Your task to perform on an android device: Search for "dell xps" on amazon, select the first entry, and add it to the cart. Image 0: 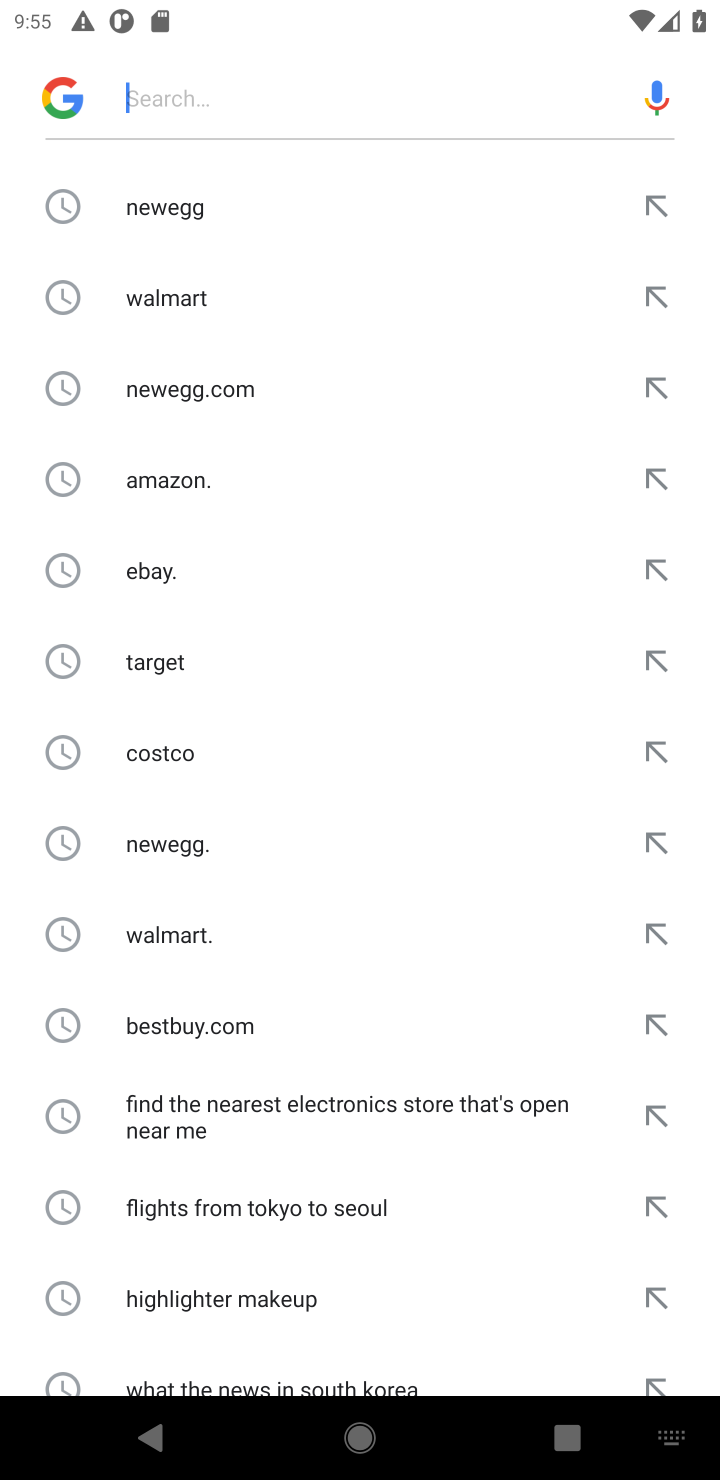
Step 0: press home button
Your task to perform on an android device: Search for "dell xps" on amazon, select the first entry, and add it to the cart. Image 1: 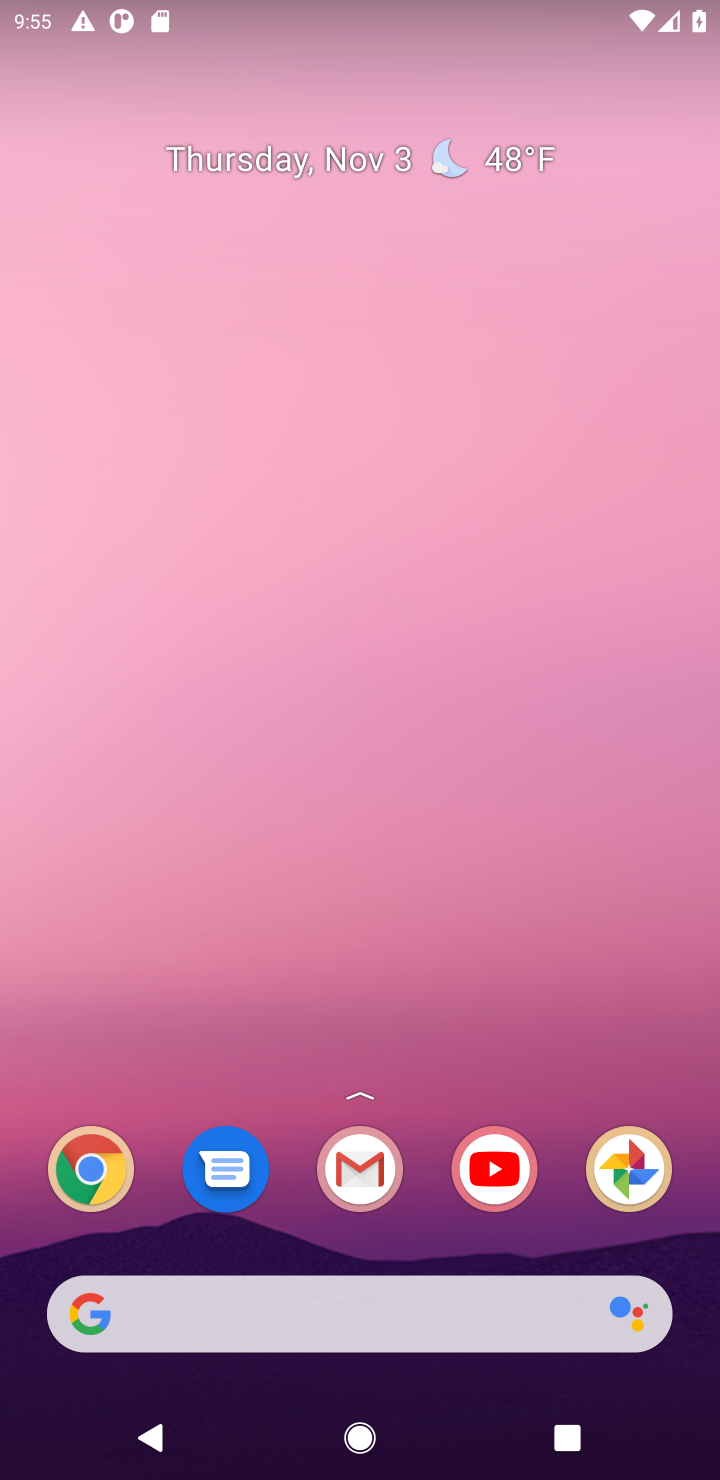
Step 1: drag from (420, 1245) to (523, 238)
Your task to perform on an android device: Search for "dell xps" on amazon, select the first entry, and add it to the cart. Image 2: 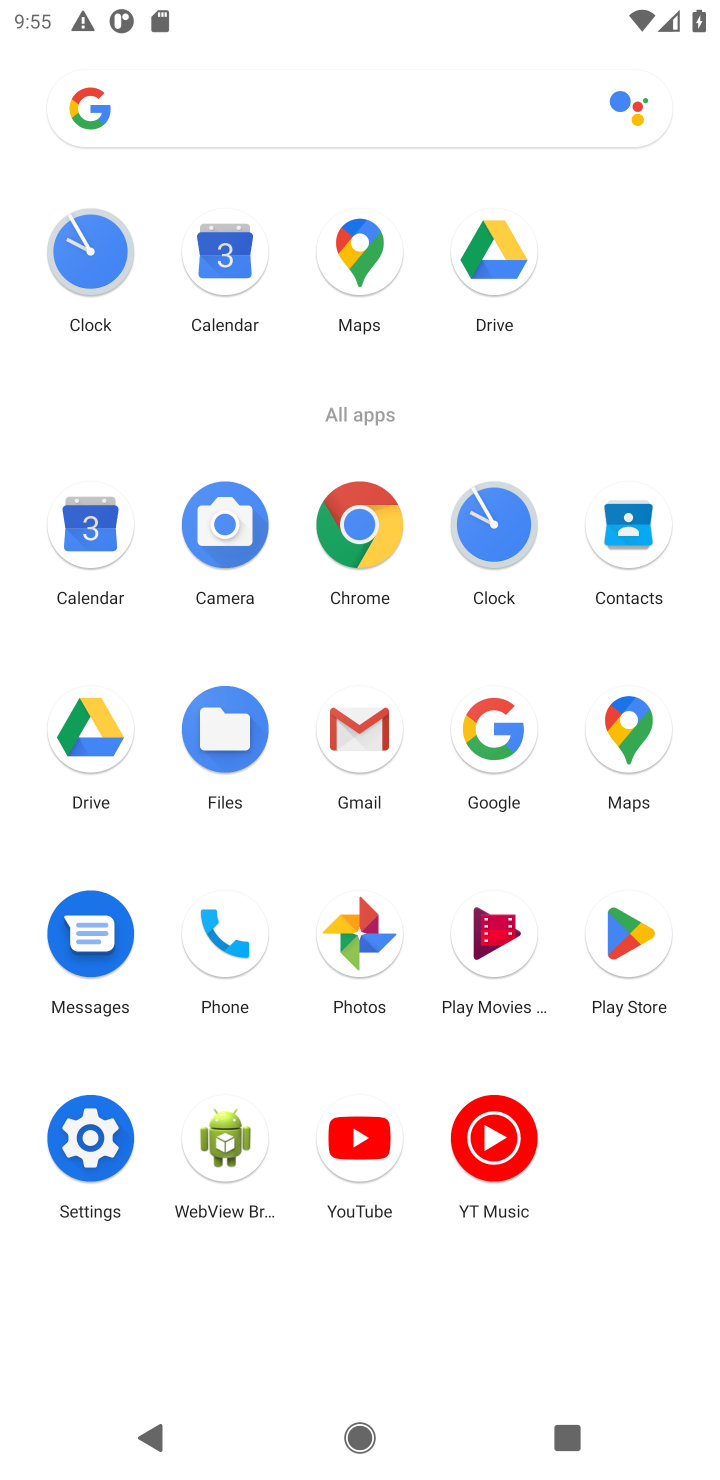
Step 2: click (357, 528)
Your task to perform on an android device: Search for "dell xps" on amazon, select the first entry, and add it to the cart. Image 3: 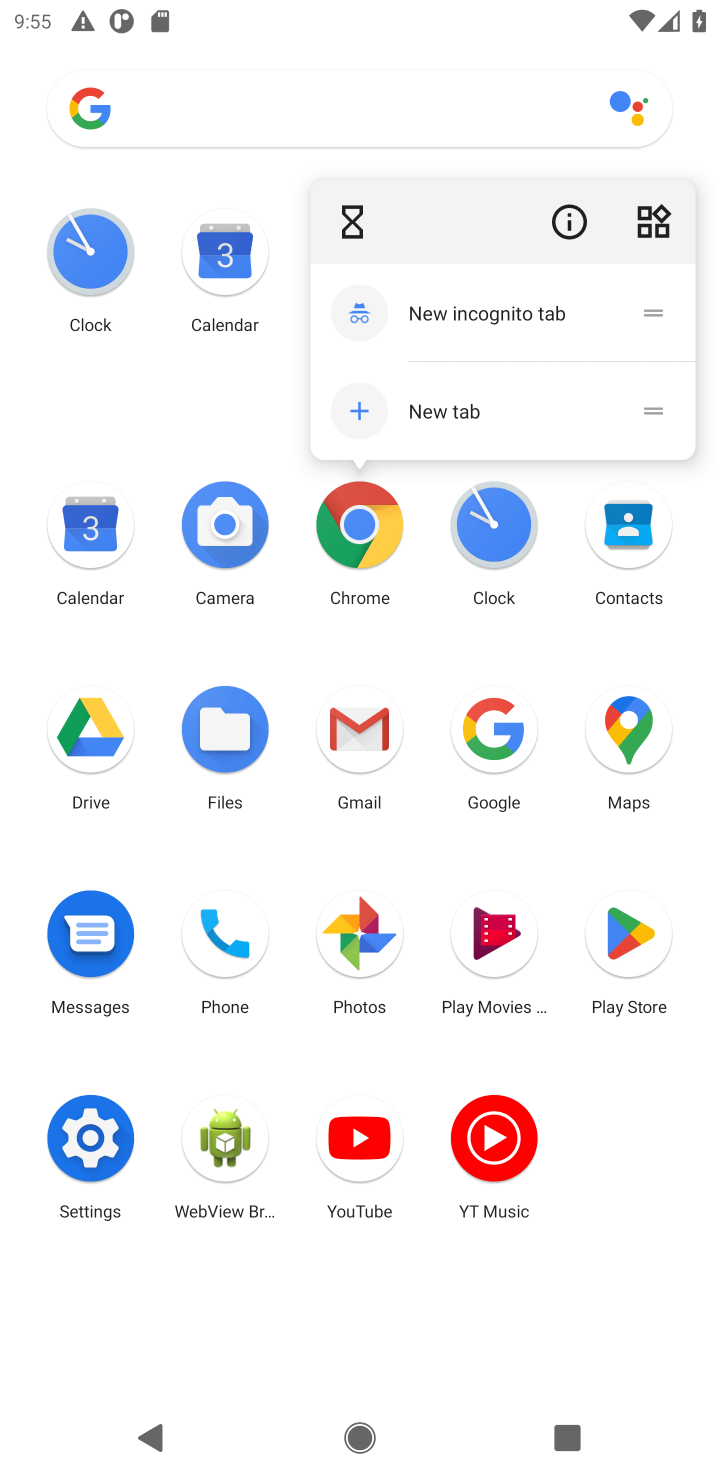
Step 3: click (357, 528)
Your task to perform on an android device: Search for "dell xps" on amazon, select the first entry, and add it to the cart. Image 4: 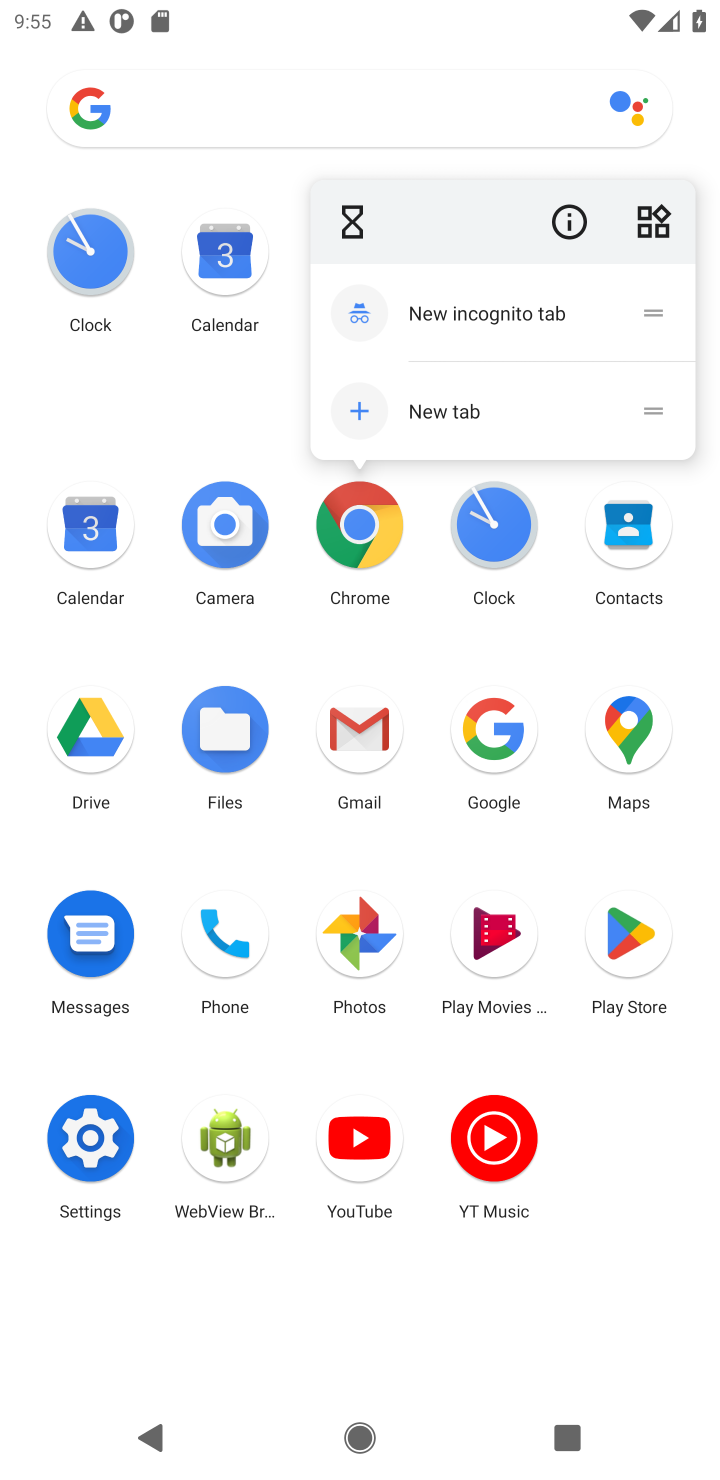
Step 4: click (370, 524)
Your task to perform on an android device: Search for "dell xps" on amazon, select the first entry, and add it to the cart. Image 5: 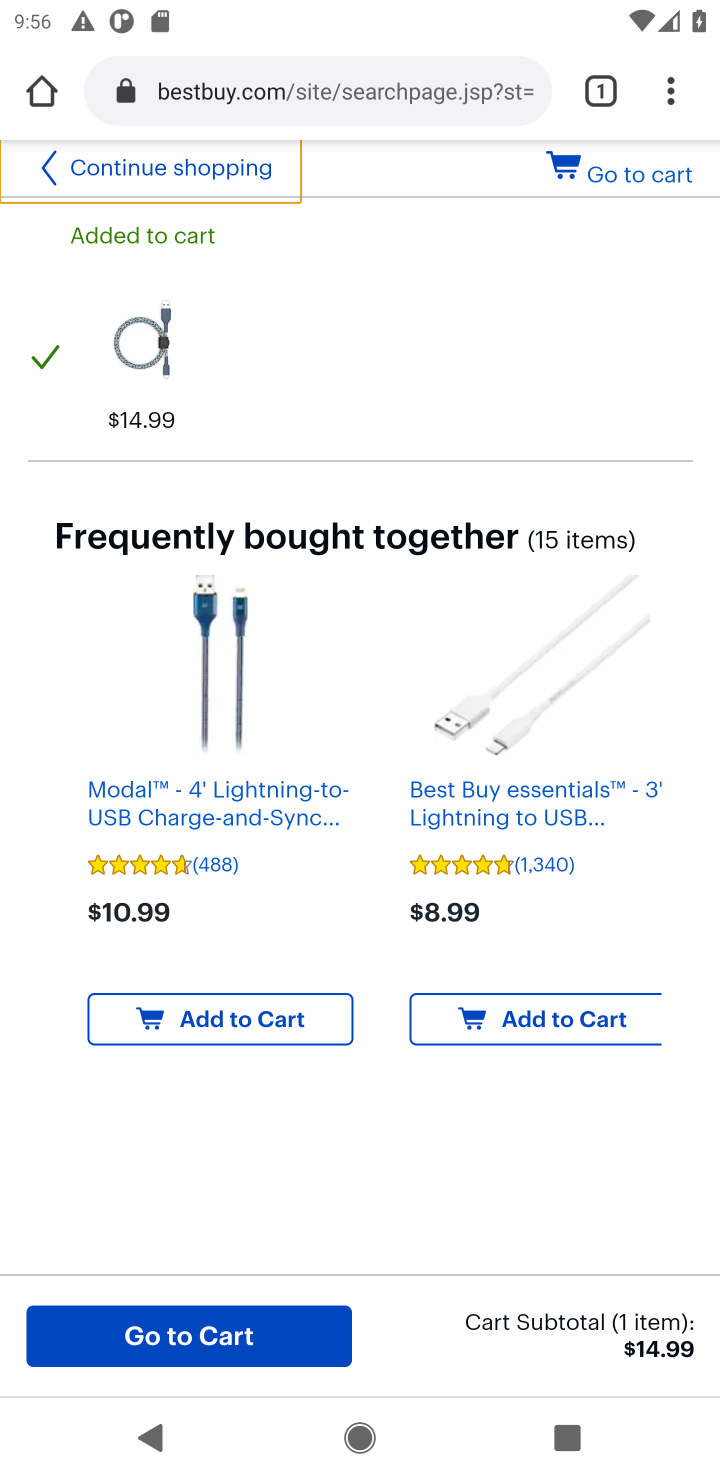
Step 5: click (363, 85)
Your task to perform on an android device: Search for "dell xps" on amazon, select the first entry, and add it to the cart. Image 6: 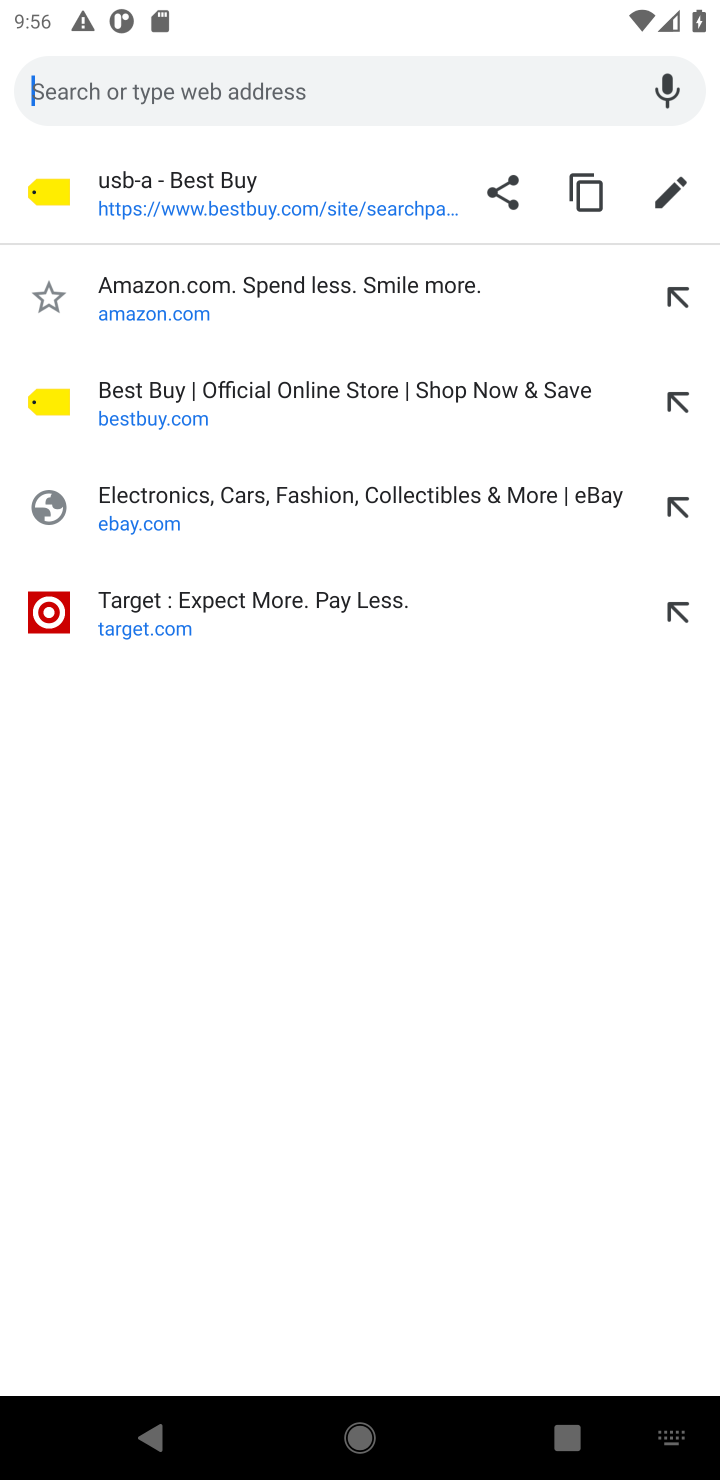
Step 6: type "amazon.com"
Your task to perform on an android device: Search for "dell xps" on amazon, select the first entry, and add it to the cart. Image 7: 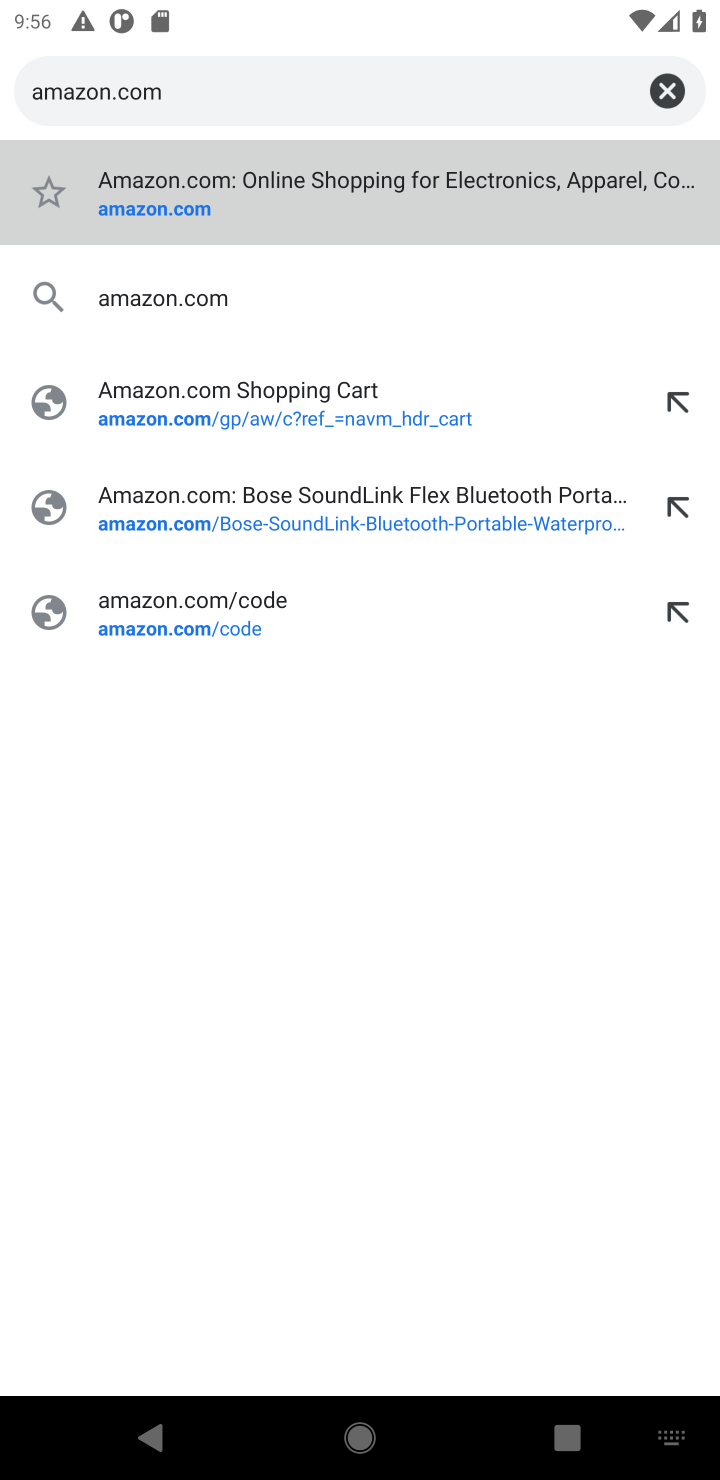
Step 7: press enter
Your task to perform on an android device: Search for "dell xps" on amazon, select the first entry, and add it to the cart. Image 8: 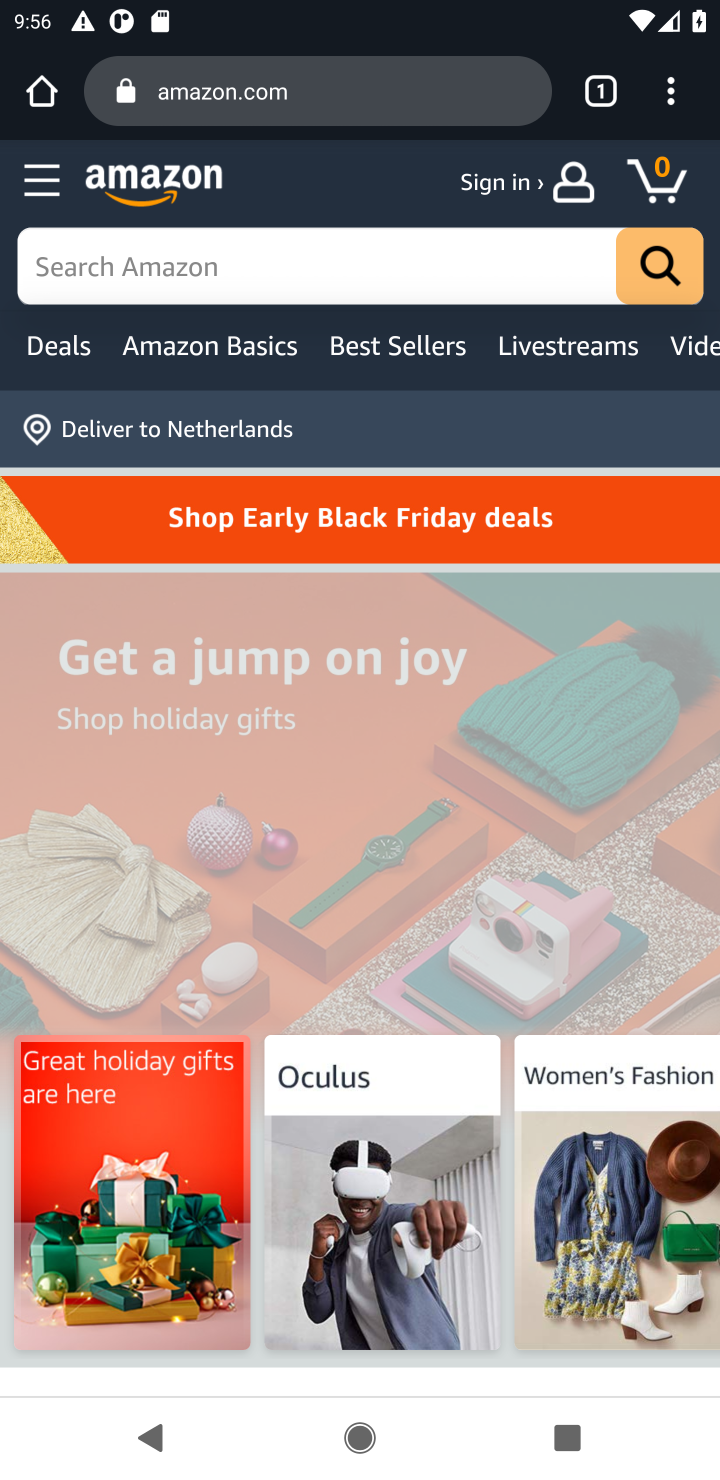
Step 8: click (377, 277)
Your task to perform on an android device: Search for "dell xps" on amazon, select the first entry, and add it to the cart. Image 9: 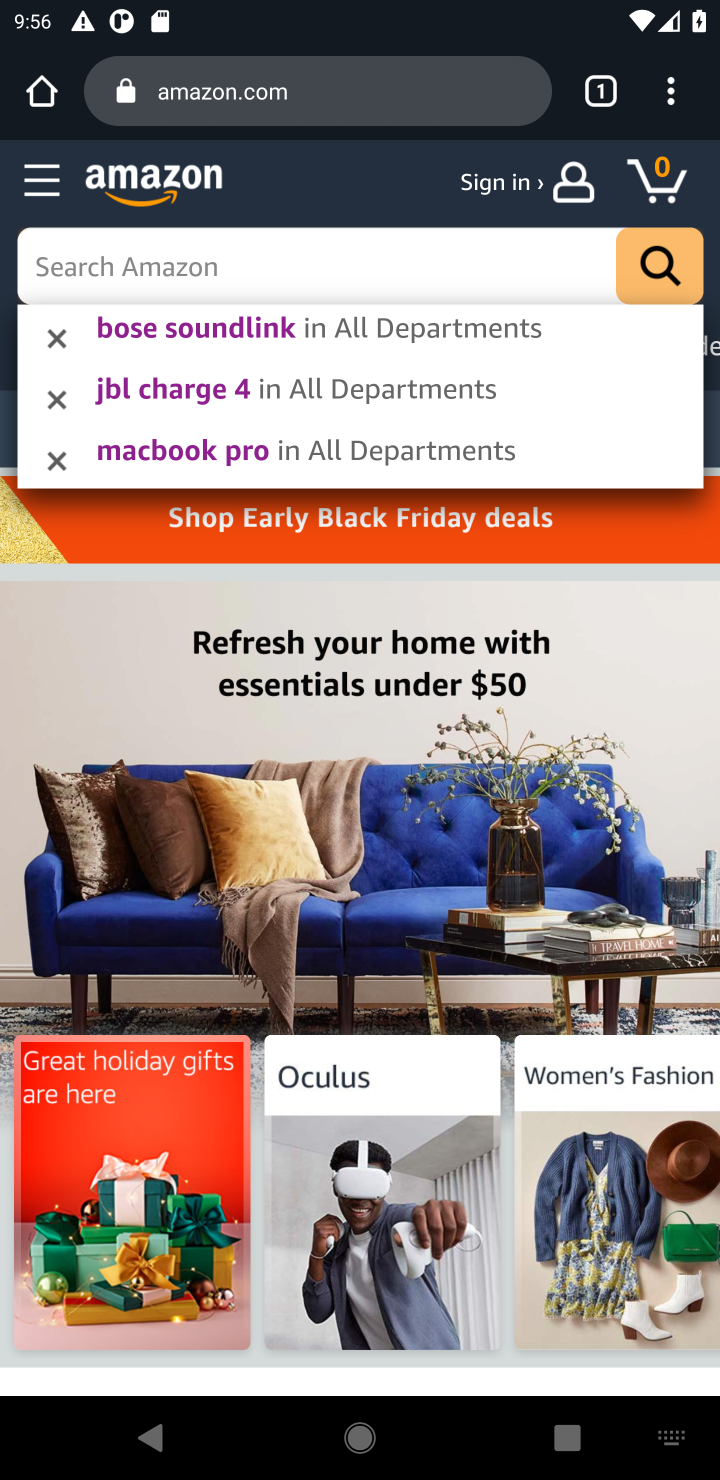
Step 9: type "dell xps"
Your task to perform on an android device: Search for "dell xps" on amazon, select the first entry, and add it to the cart. Image 10: 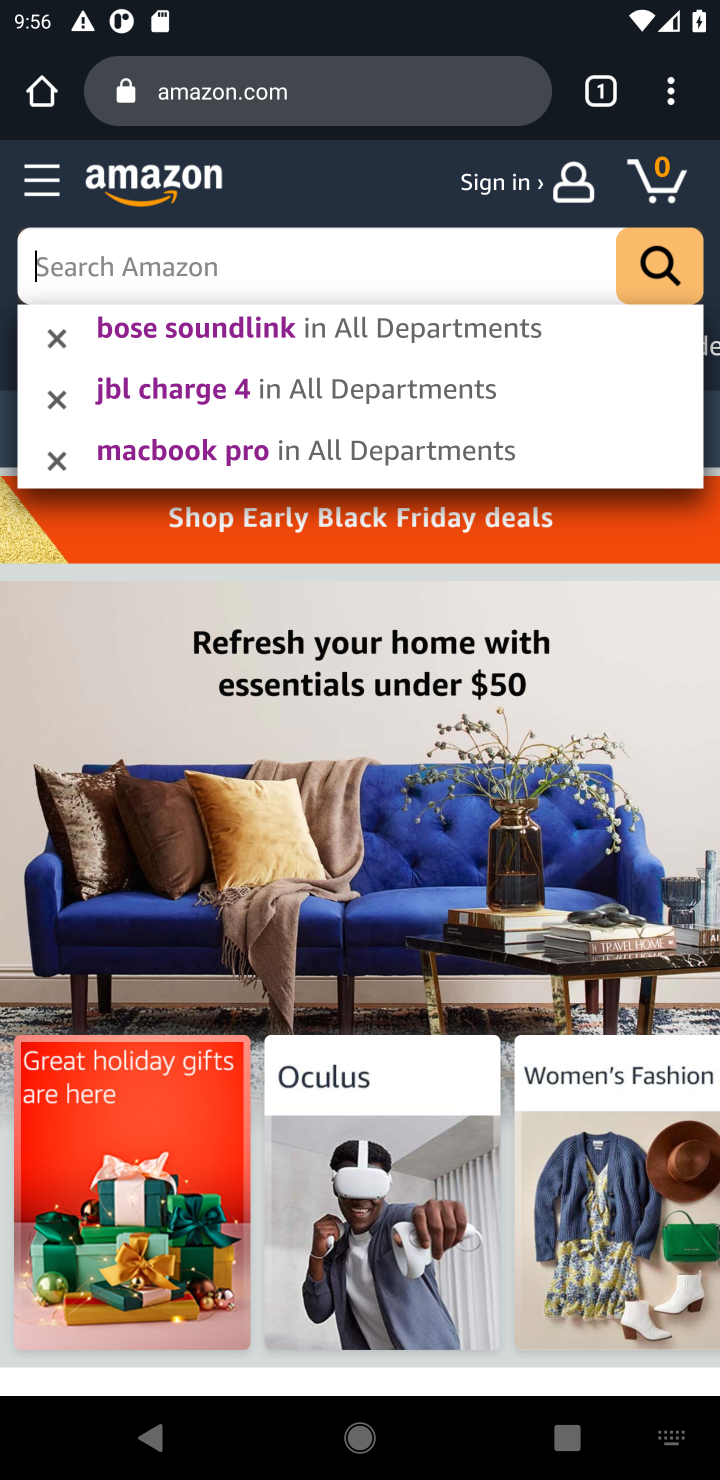
Step 10: click (655, 285)
Your task to perform on an android device: Search for "dell xps" on amazon, select the first entry, and add it to the cart. Image 11: 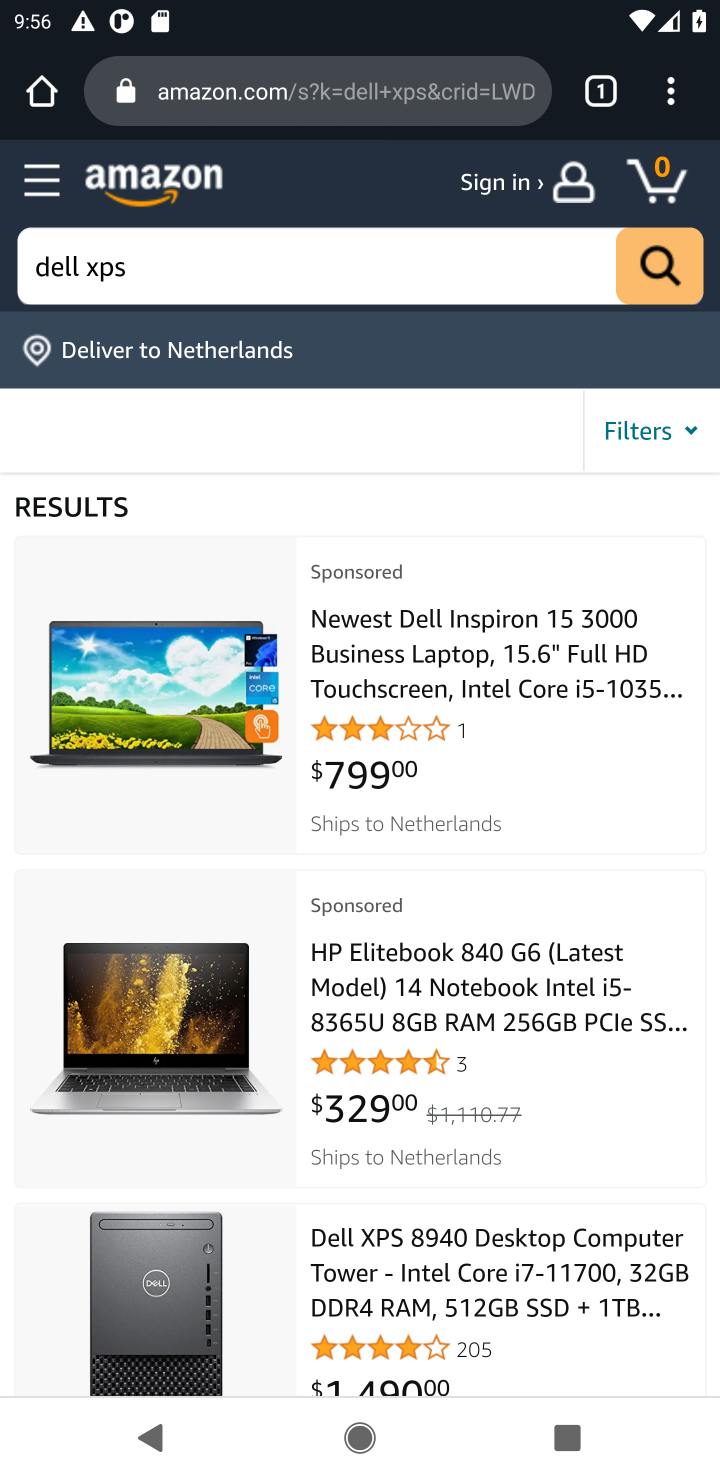
Step 11: drag from (403, 1247) to (465, 585)
Your task to perform on an android device: Search for "dell xps" on amazon, select the first entry, and add it to the cart. Image 12: 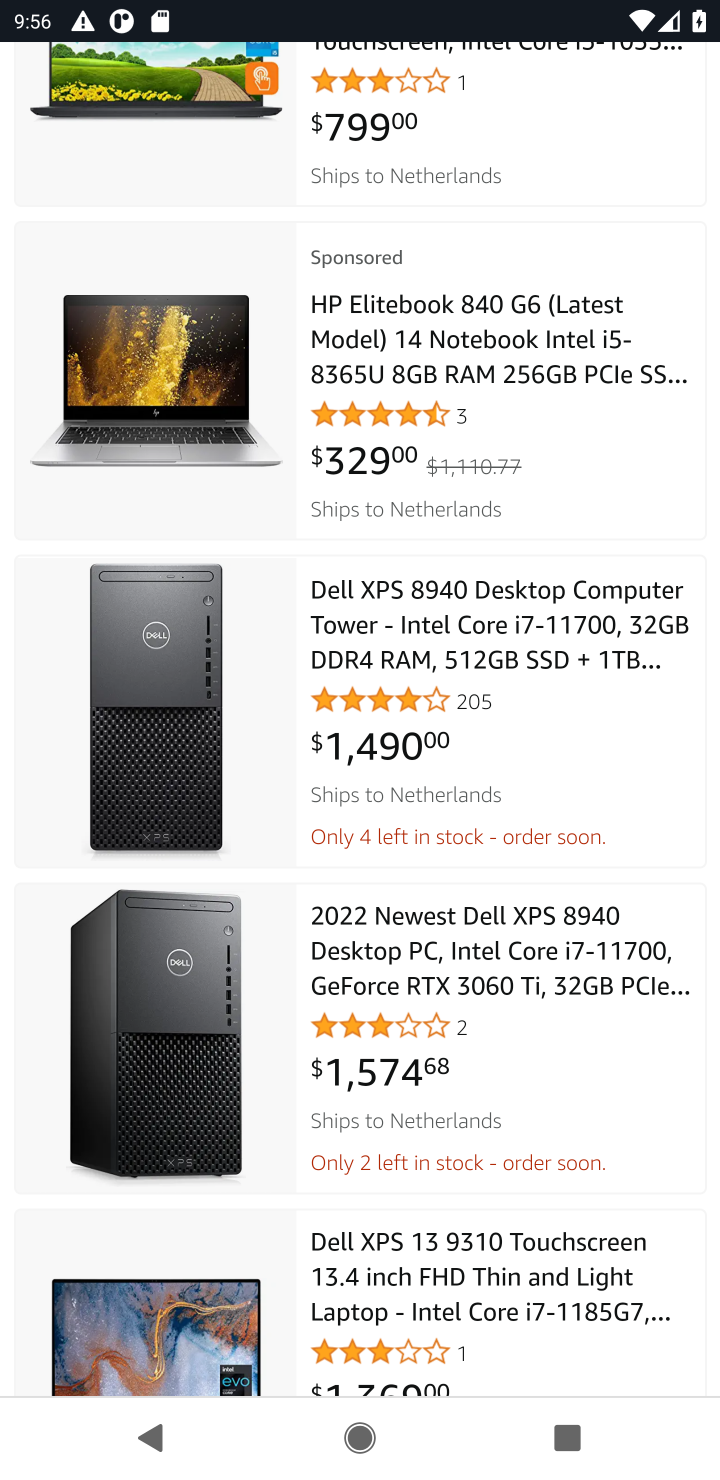
Step 12: click (404, 641)
Your task to perform on an android device: Search for "dell xps" on amazon, select the first entry, and add it to the cart. Image 13: 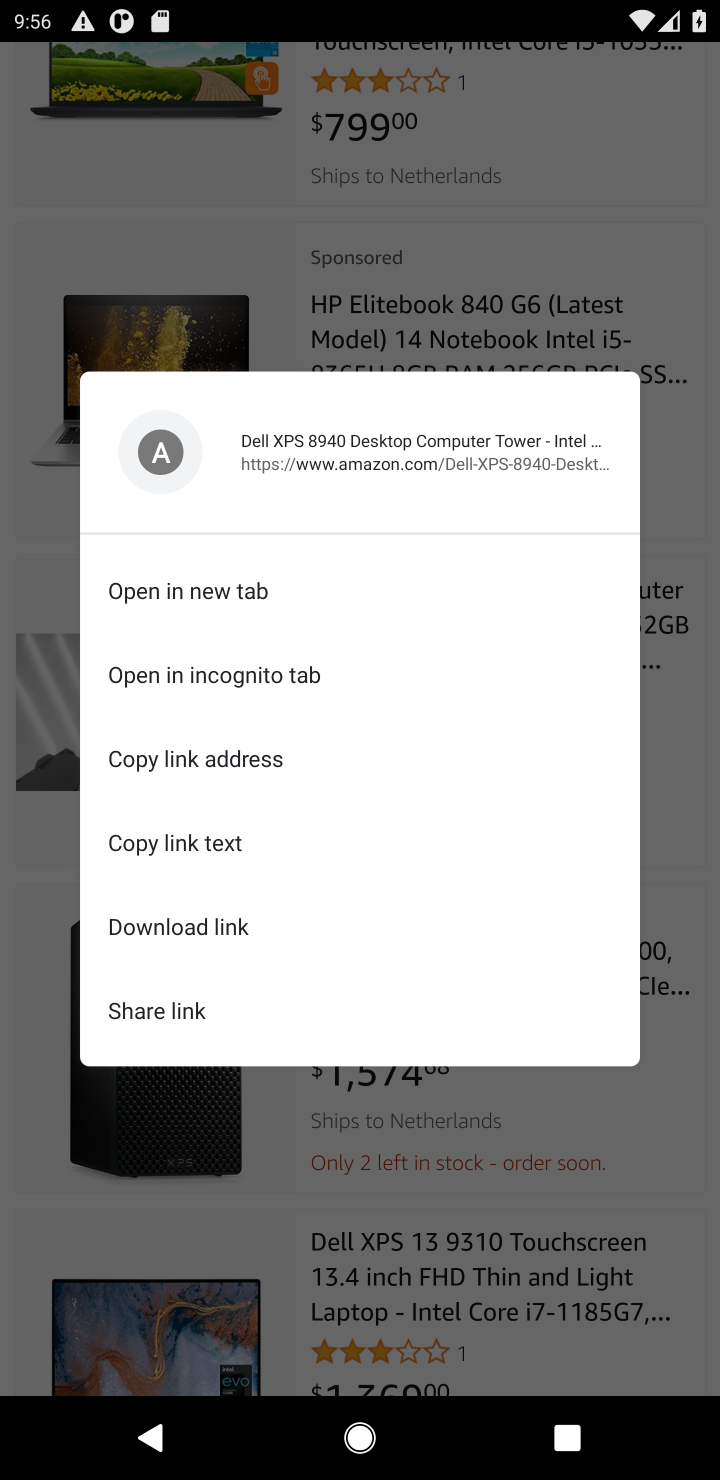
Step 13: click (436, 156)
Your task to perform on an android device: Search for "dell xps" on amazon, select the first entry, and add it to the cart. Image 14: 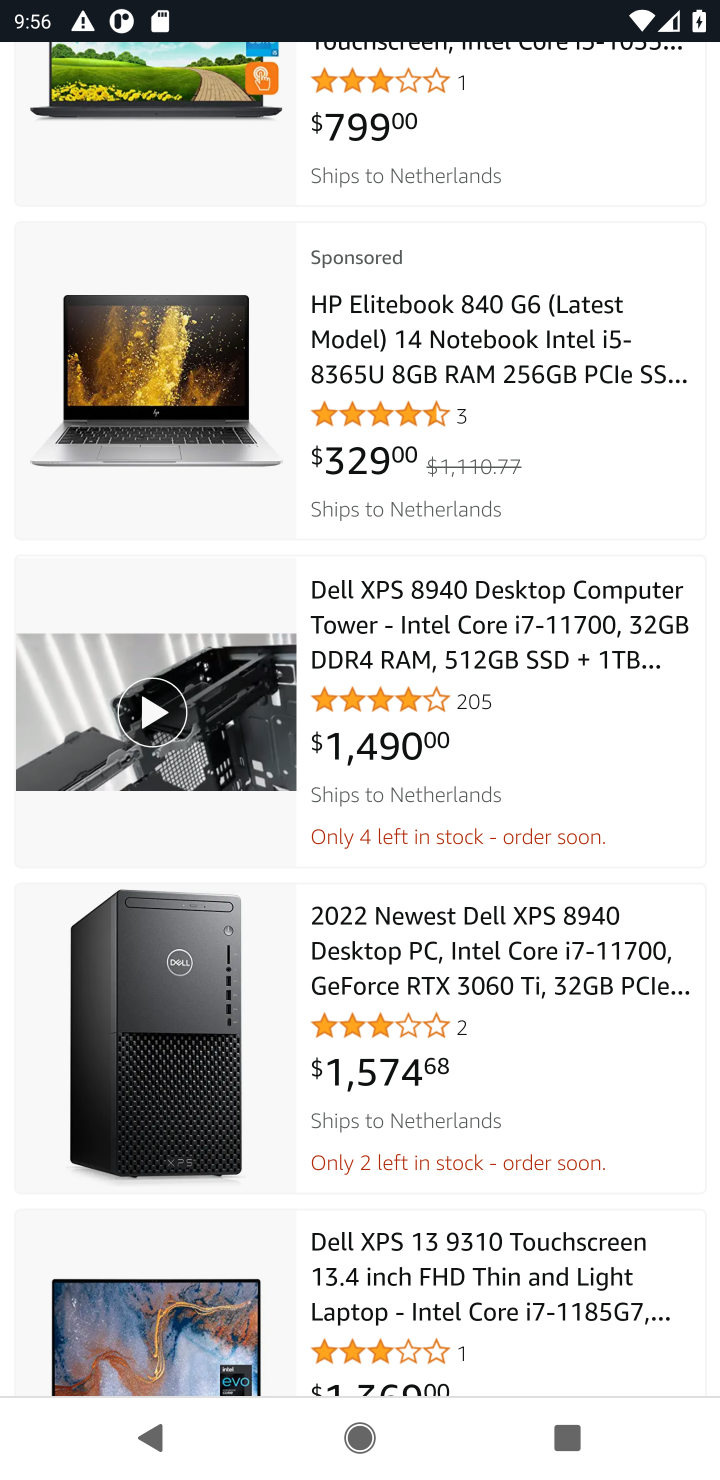
Step 14: click (506, 627)
Your task to perform on an android device: Search for "dell xps" on amazon, select the first entry, and add it to the cart. Image 15: 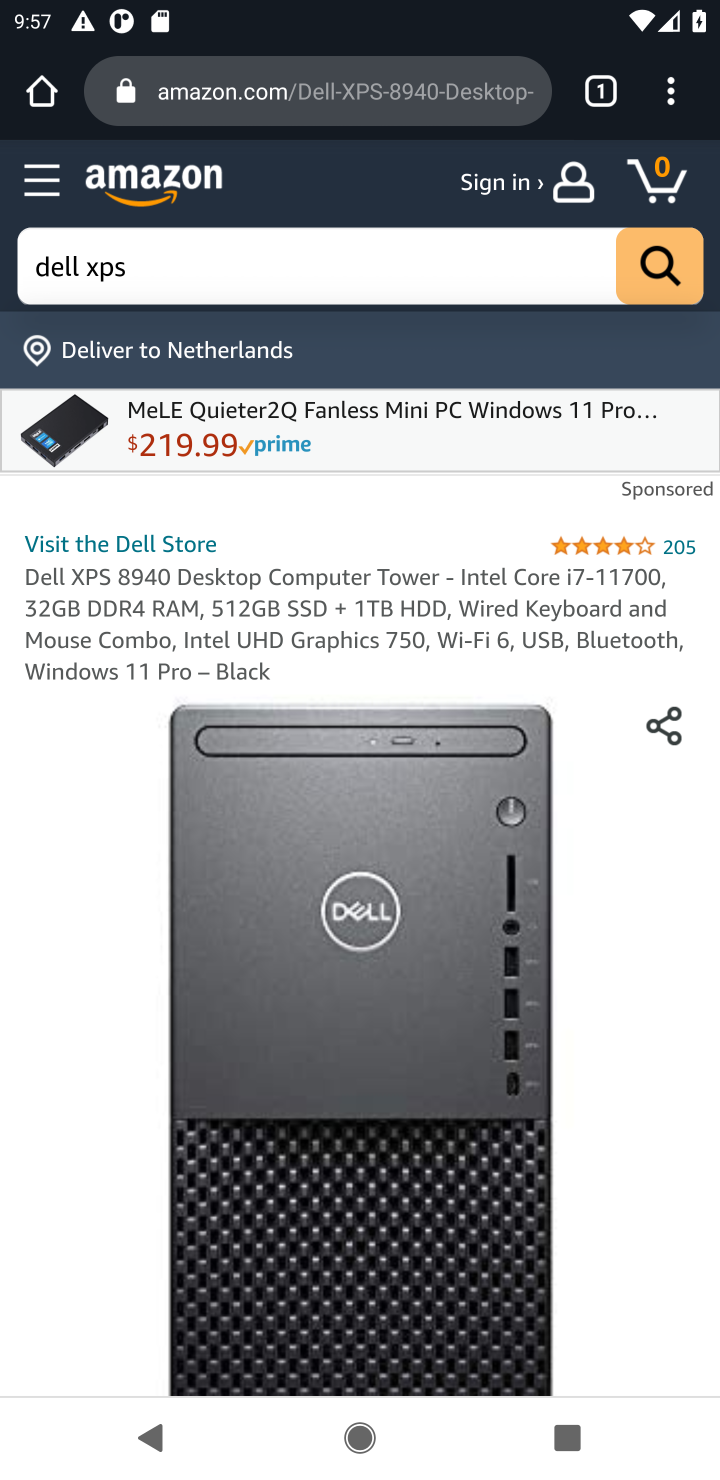
Step 15: drag from (555, 1221) to (634, 185)
Your task to perform on an android device: Search for "dell xps" on amazon, select the first entry, and add it to the cart. Image 16: 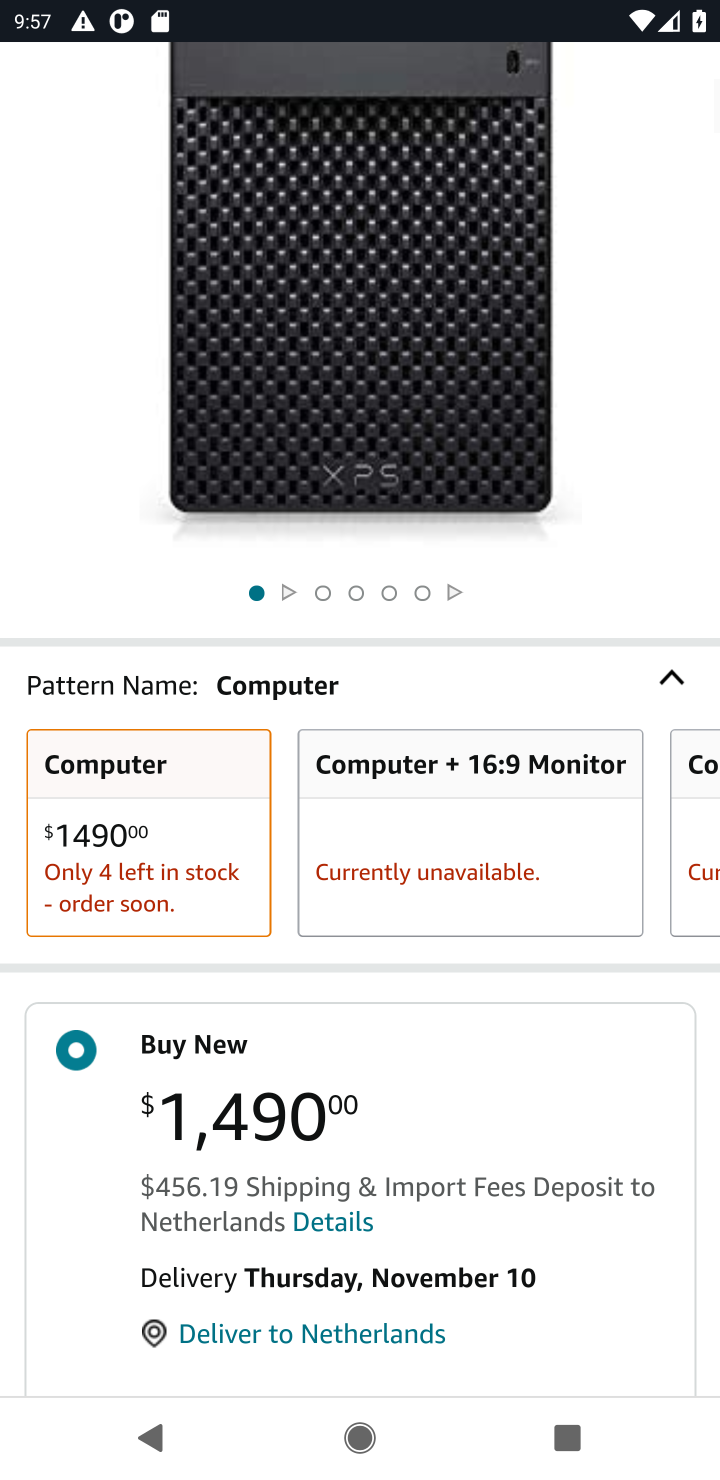
Step 16: drag from (504, 866) to (492, 178)
Your task to perform on an android device: Search for "dell xps" on amazon, select the first entry, and add it to the cart. Image 17: 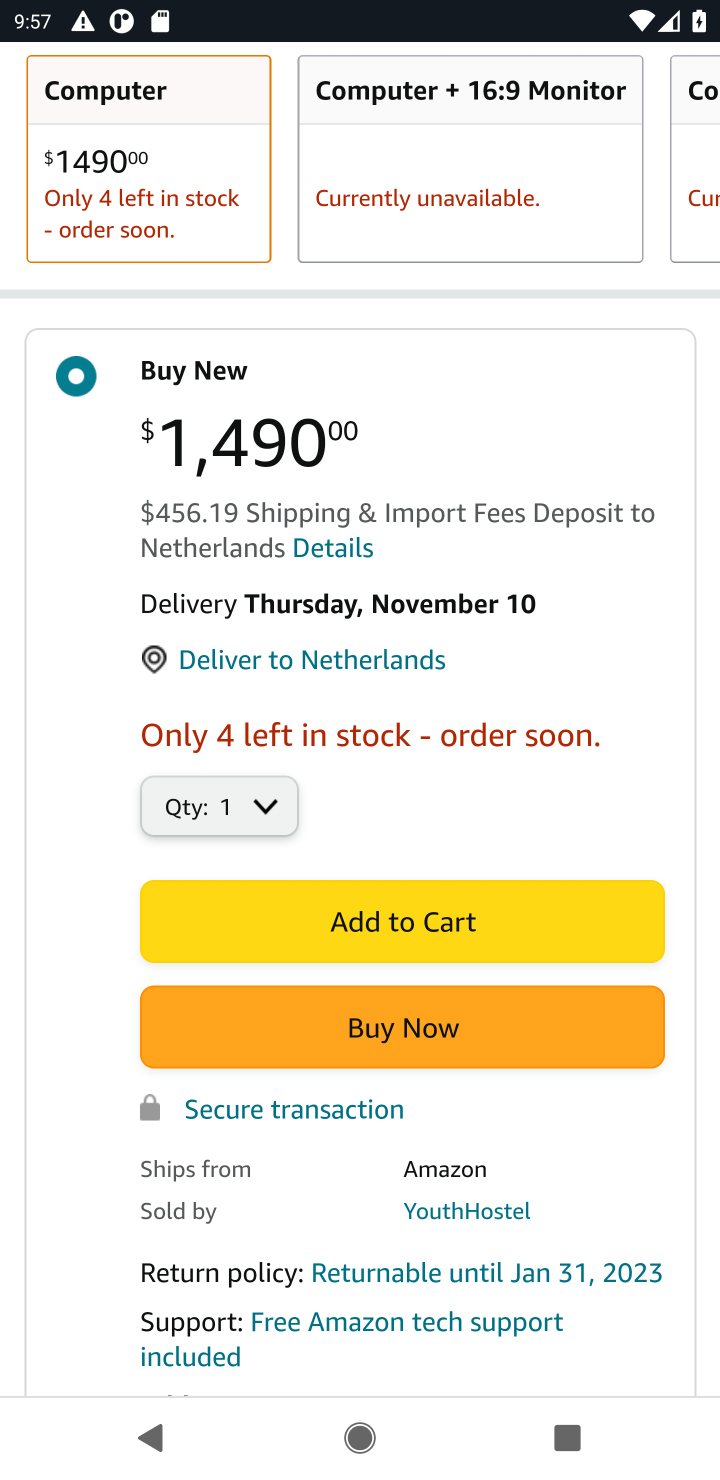
Step 17: click (524, 948)
Your task to perform on an android device: Search for "dell xps" on amazon, select the first entry, and add it to the cart. Image 18: 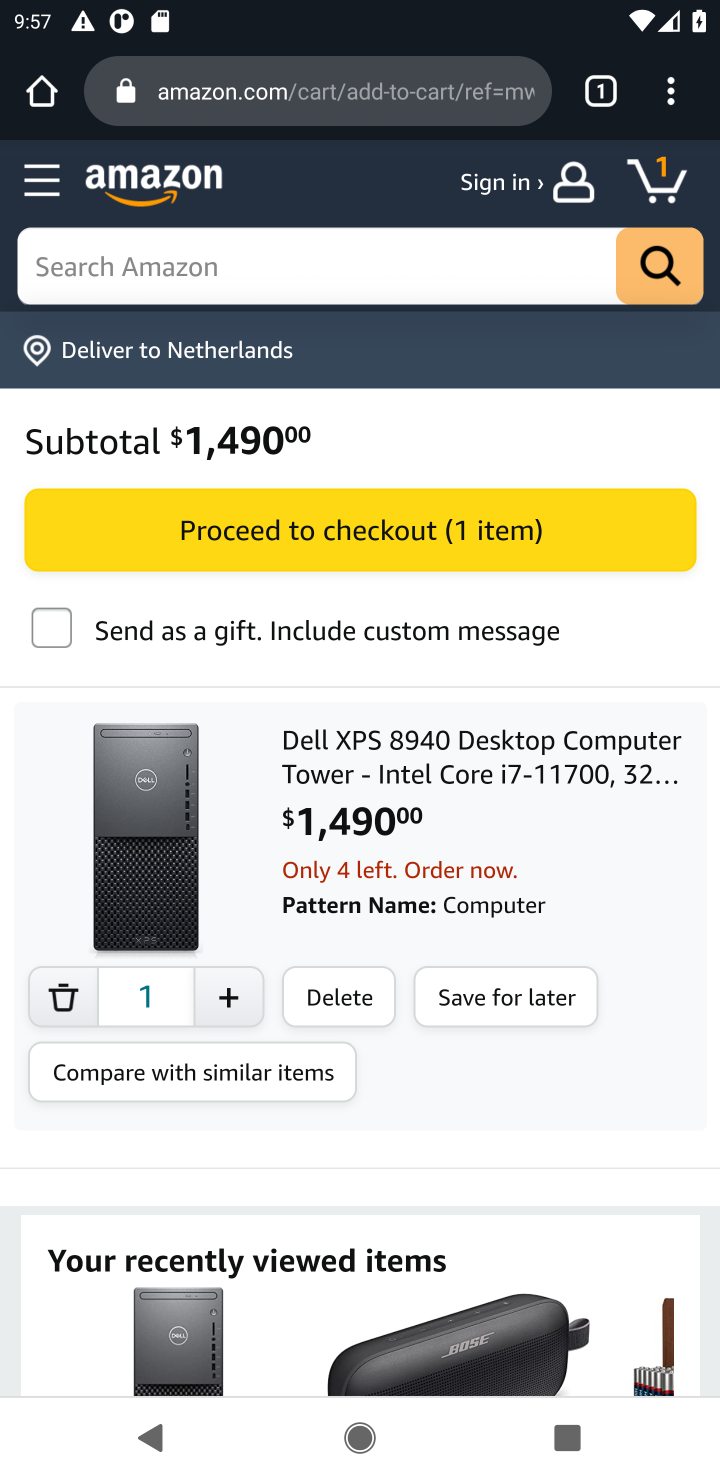
Step 18: task complete